Your task to perform on an android device: toggle javascript in the chrome app Image 0: 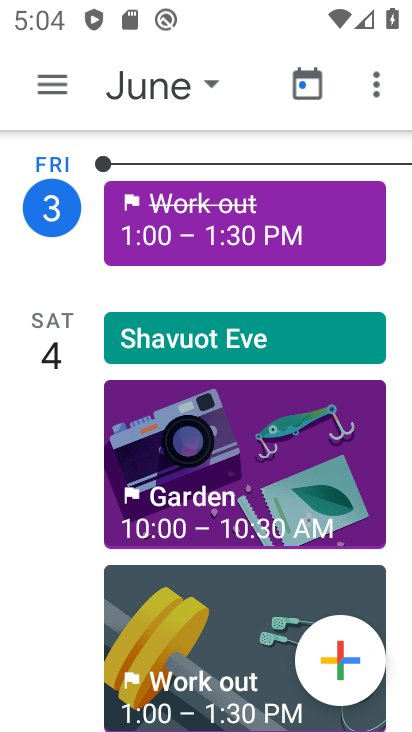
Step 0: press home button
Your task to perform on an android device: toggle javascript in the chrome app Image 1: 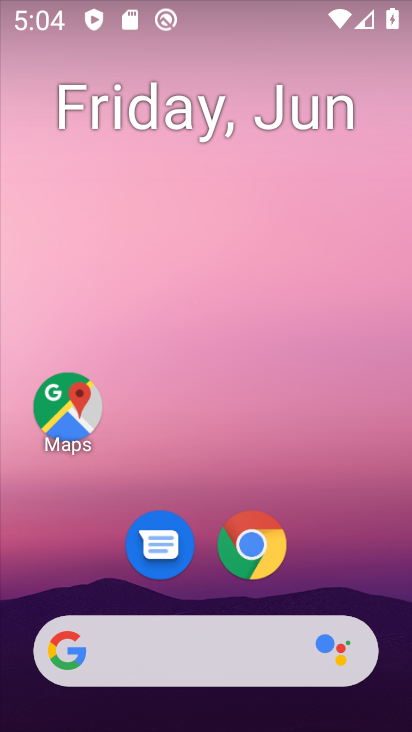
Step 1: click (243, 540)
Your task to perform on an android device: toggle javascript in the chrome app Image 2: 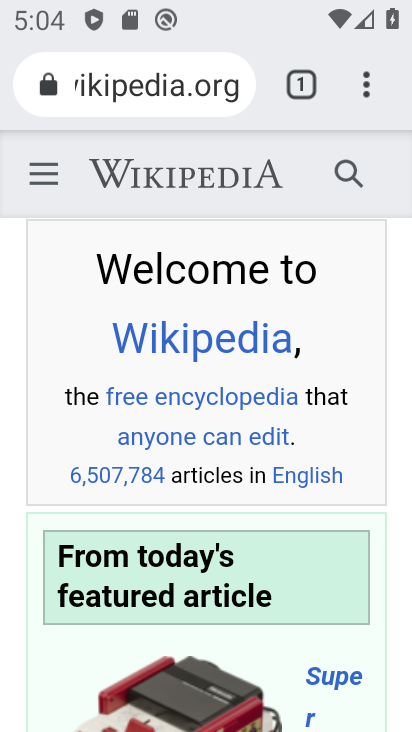
Step 2: click (364, 91)
Your task to perform on an android device: toggle javascript in the chrome app Image 3: 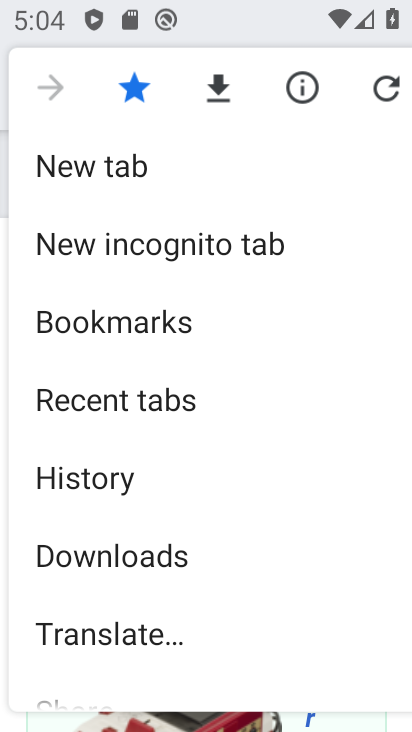
Step 3: drag from (78, 701) to (99, 423)
Your task to perform on an android device: toggle javascript in the chrome app Image 4: 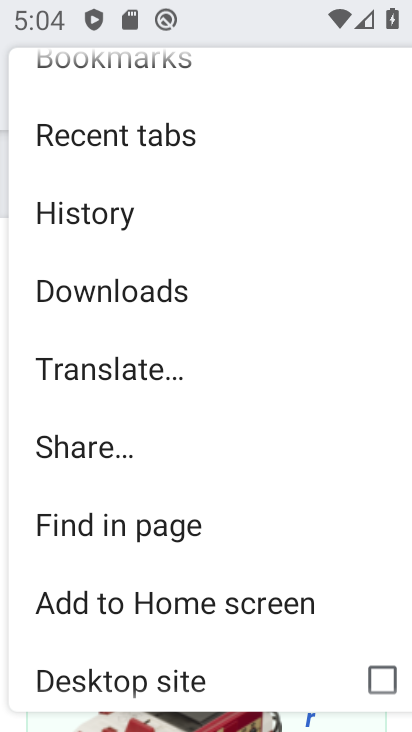
Step 4: drag from (95, 594) to (97, 338)
Your task to perform on an android device: toggle javascript in the chrome app Image 5: 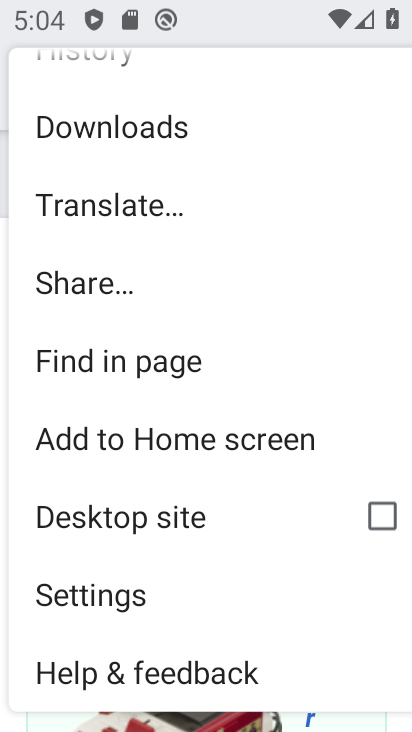
Step 5: click (114, 611)
Your task to perform on an android device: toggle javascript in the chrome app Image 6: 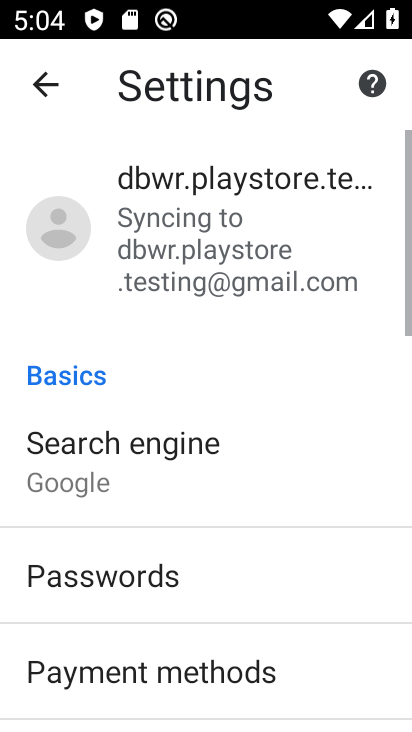
Step 6: drag from (113, 660) to (124, 281)
Your task to perform on an android device: toggle javascript in the chrome app Image 7: 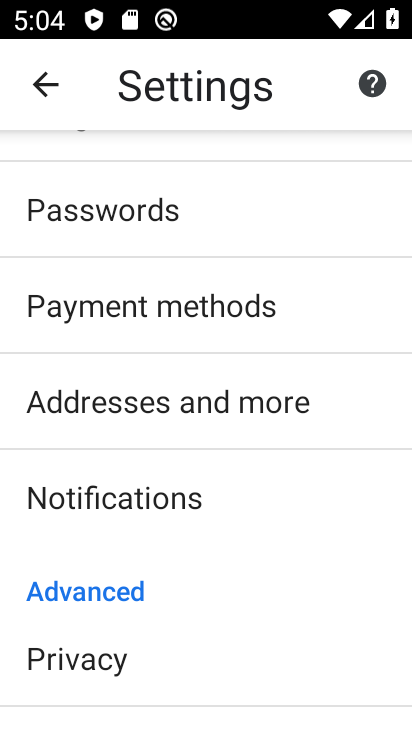
Step 7: drag from (101, 667) to (141, 244)
Your task to perform on an android device: toggle javascript in the chrome app Image 8: 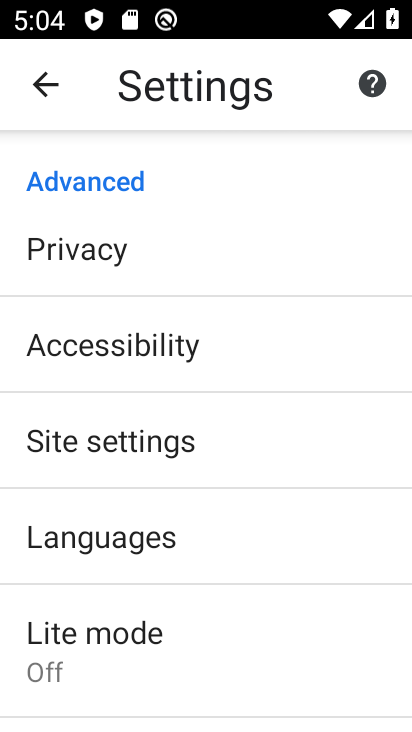
Step 8: click (110, 451)
Your task to perform on an android device: toggle javascript in the chrome app Image 9: 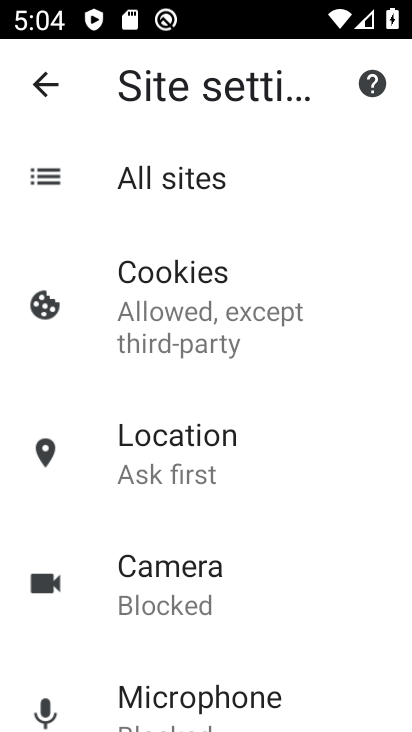
Step 9: drag from (207, 709) to (192, 329)
Your task to perform on an android device: toggle javascript in the chrome app Image 10: 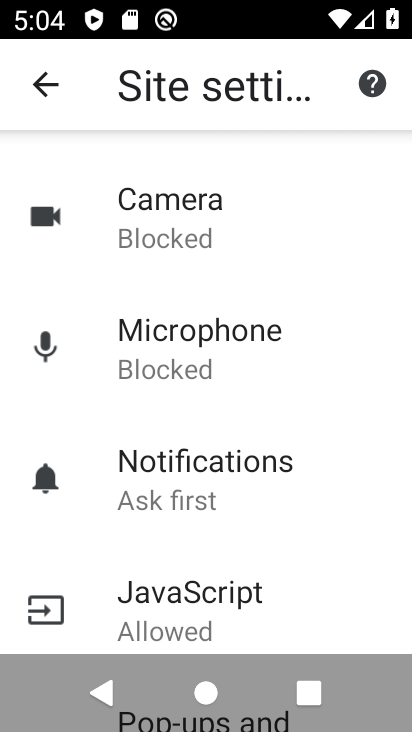
Step 10: click (191, 619)
Your task to perform on an android device: toggle javascript in the chrome app Image 11: 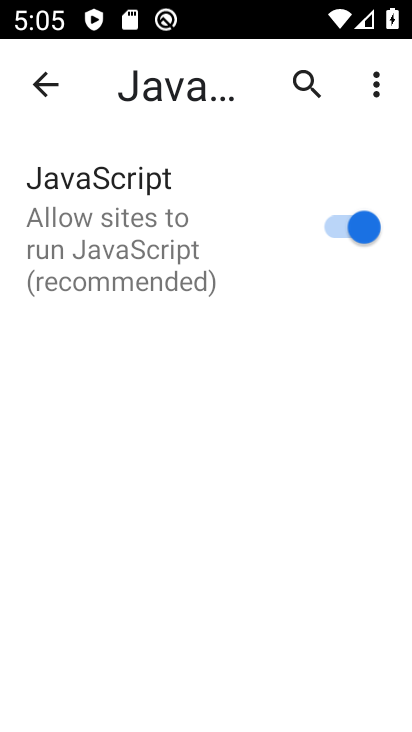
Step 11: click (344, 226)
Your task to perform on an android device: toggle javascript in the chrome app Image 12: 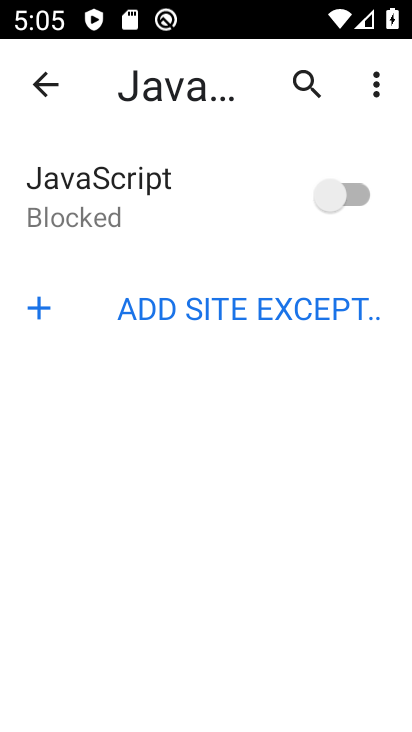
Step 12: click (345, 199)
Your task to perform on an android device: toggle javascript in the chrome app Image 13: 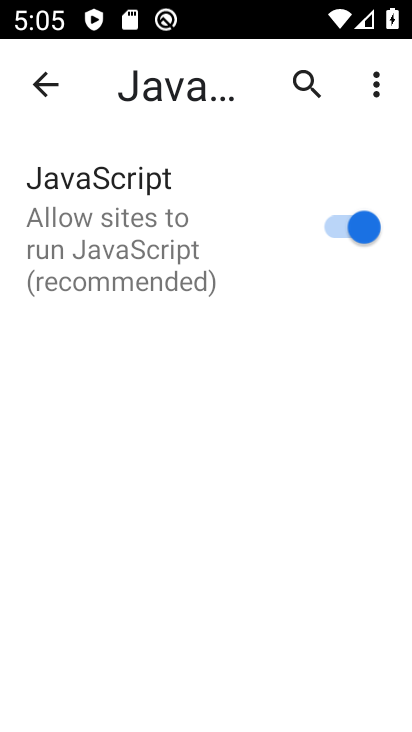
Step 13: task complete